Your task to perform on an android device: open app "PlayWell" (install if not already installed) Image 0: 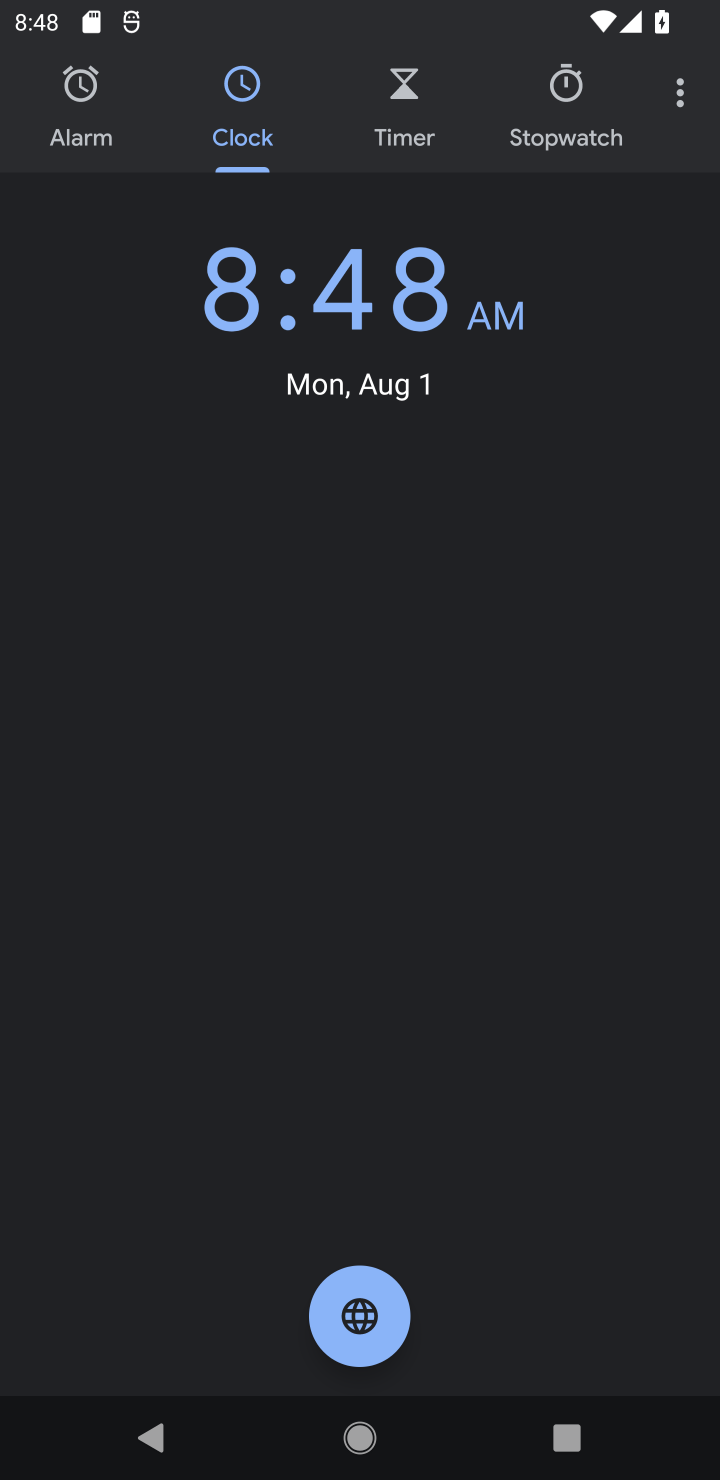
Step 0: press home button
Your task to perform on an android device: open app "PlayWell" (install if not already installed) Image 1: 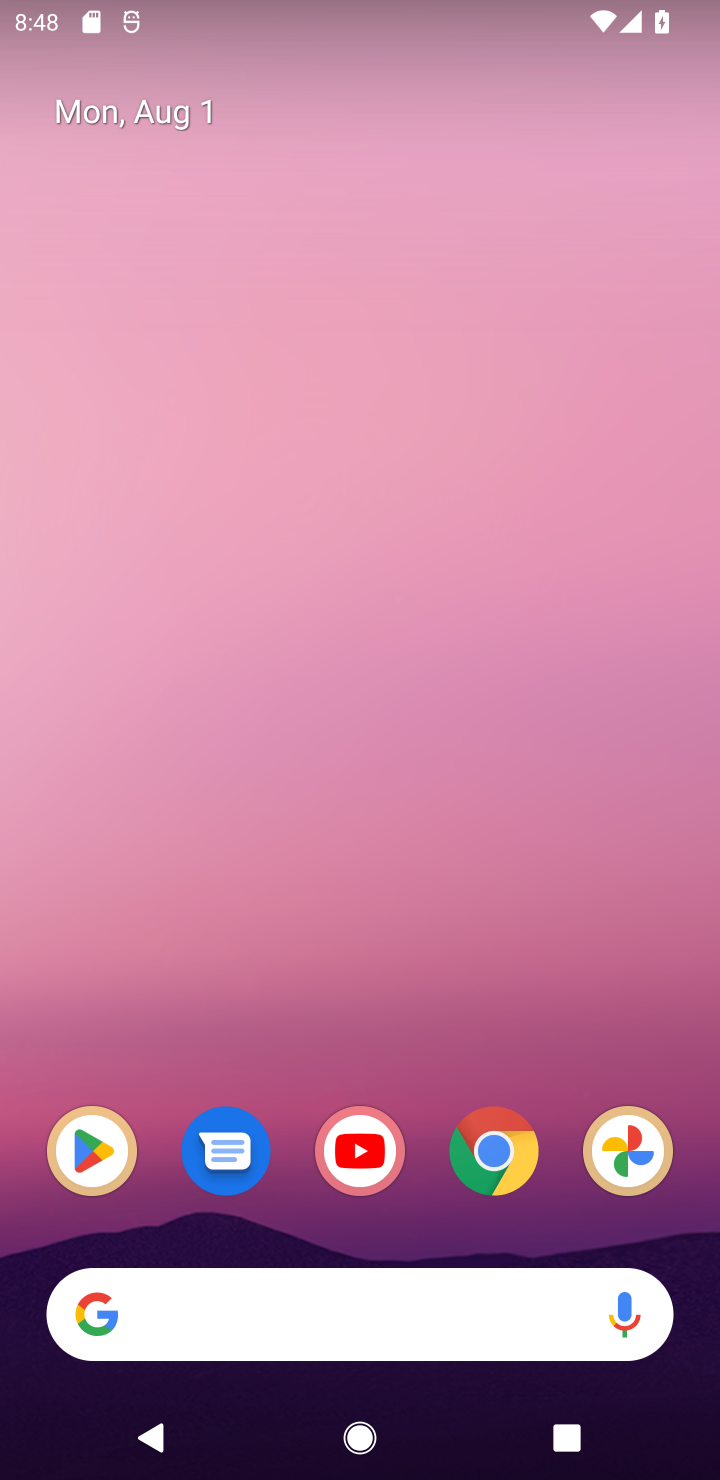
Step 1: click (106, 1154)
Your task to perform on an android device: open app "PlayWell" (install if not already installed) Image 2: 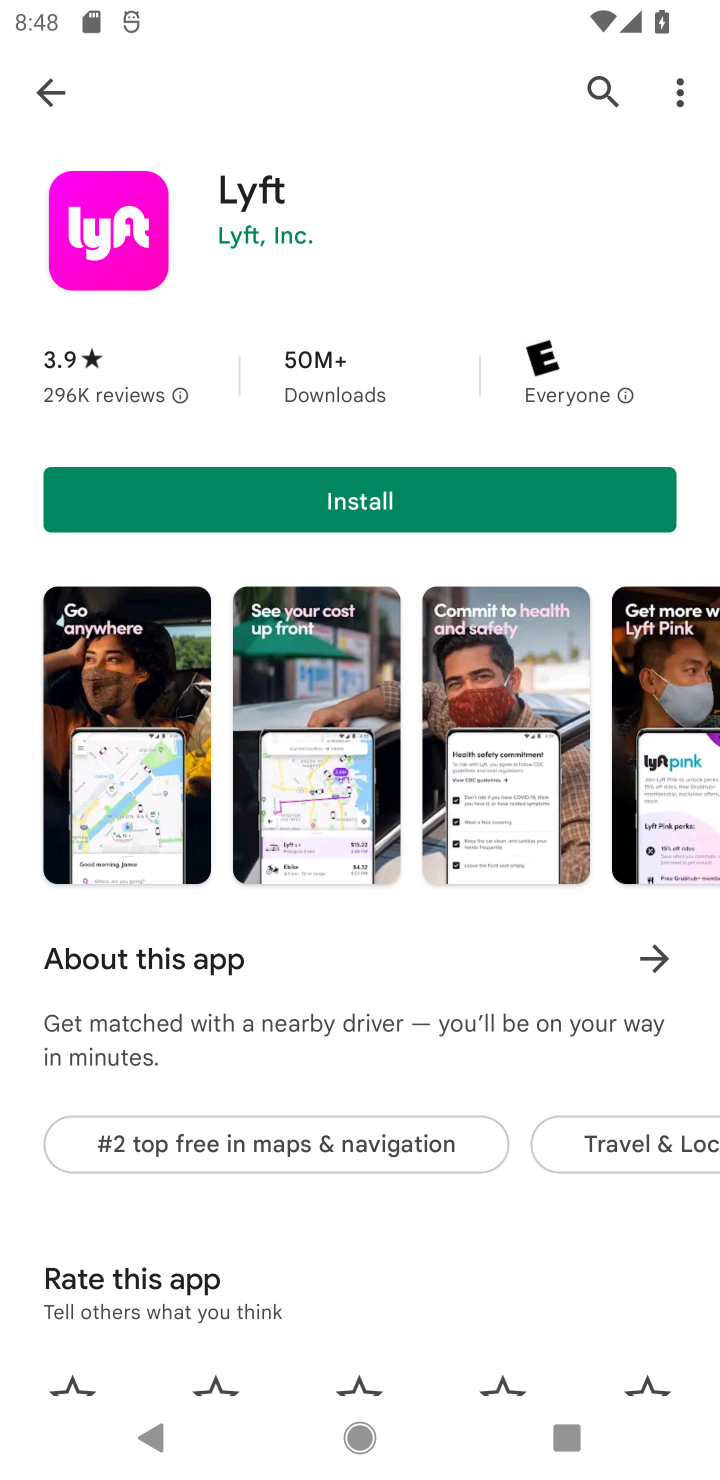
Step 2: click (599, 108)
Your task to perform on an android device: open app "PlayWell" (install if not already installed) Image 3: 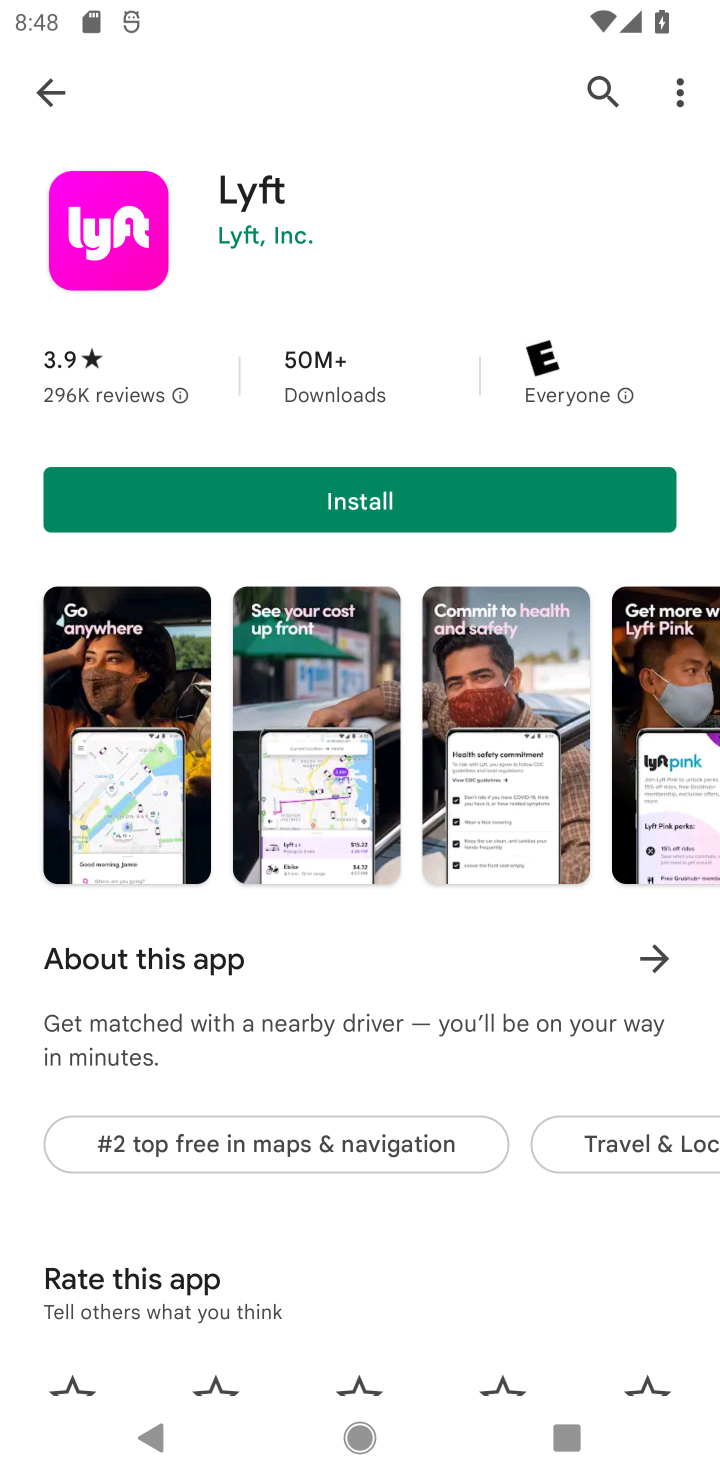
Step 3: click (590, 93)
Your task to perform on an android device: open app "PlayWell" (install if not already installed) Image 4: 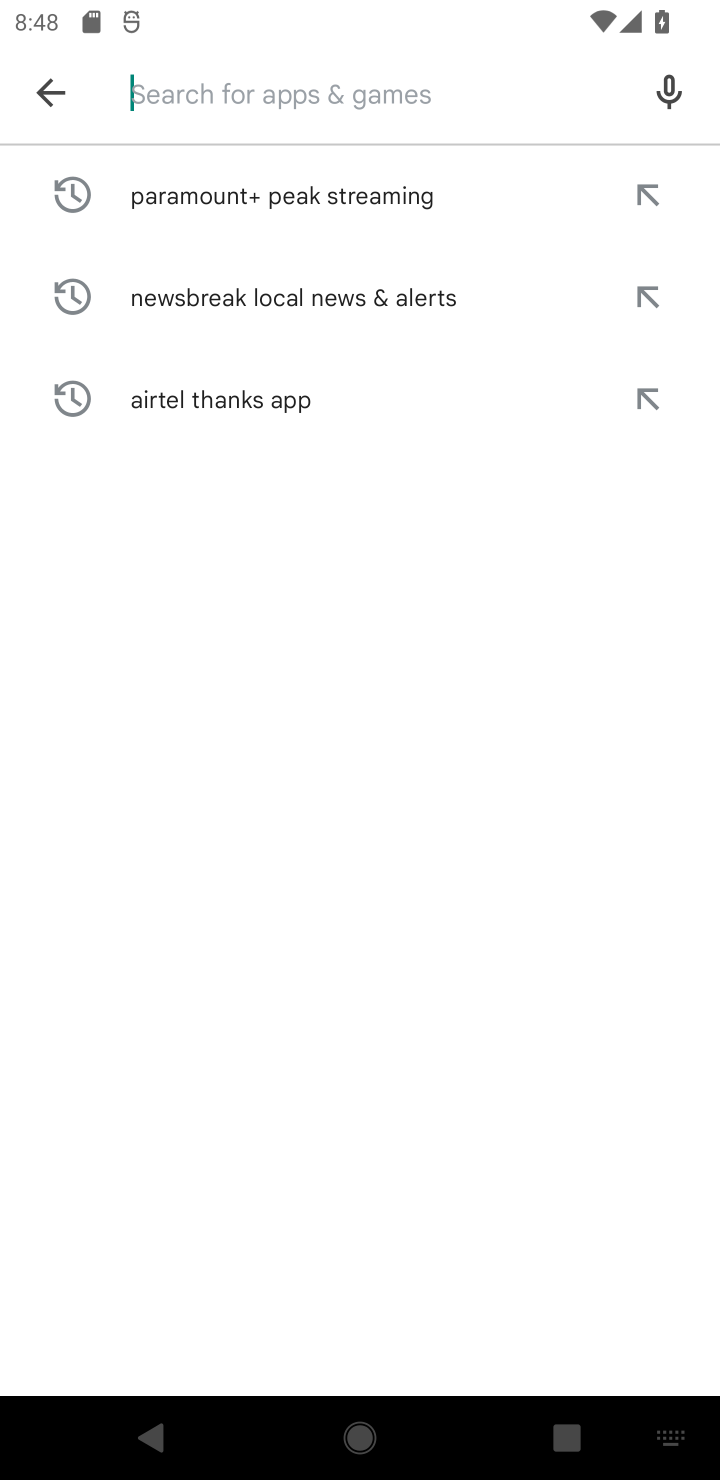
Step 4: type "PlayWell"
Your task to perform on an android device: open app "PlayWell" (install if not already installed) Image 5: 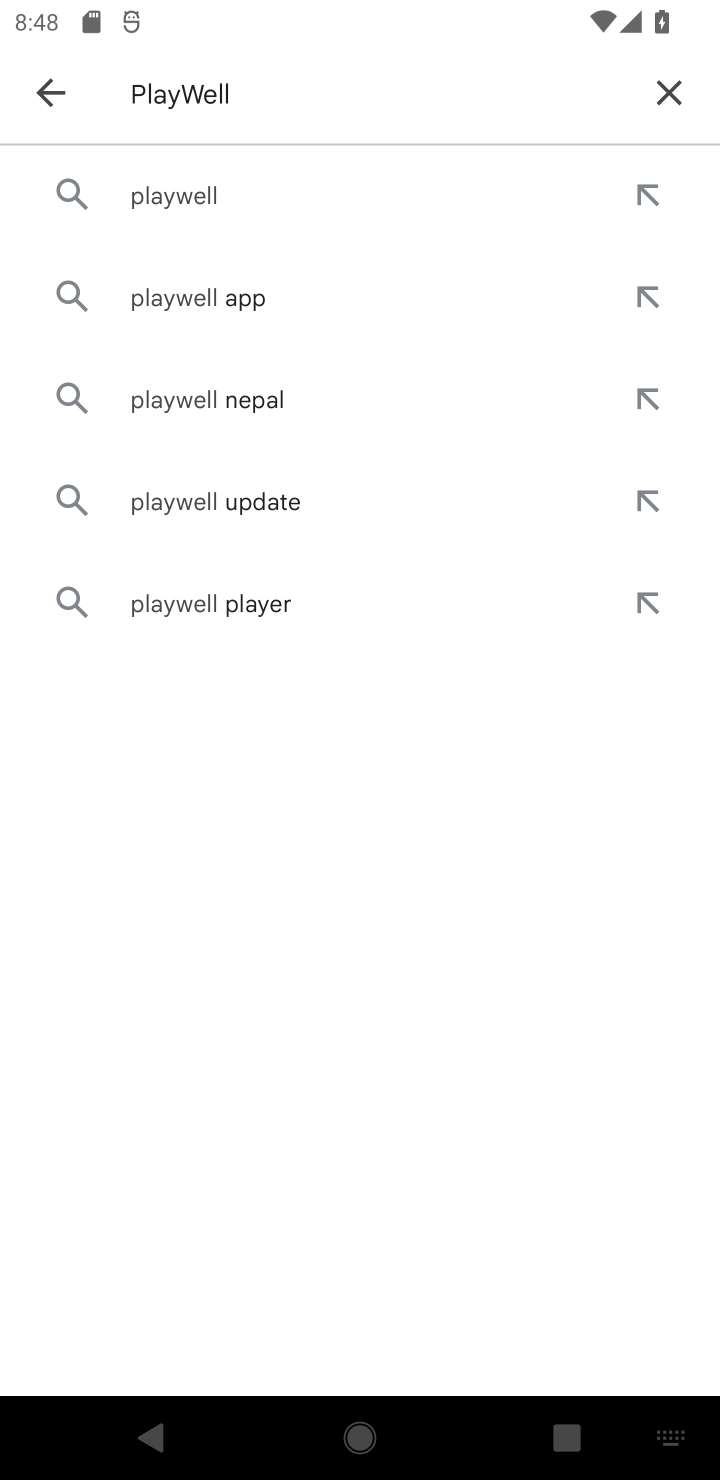
Step 5: click (225, 187)
Your task to perform on an android device: open app "PlayWell" (install if not already installed) Image 6: 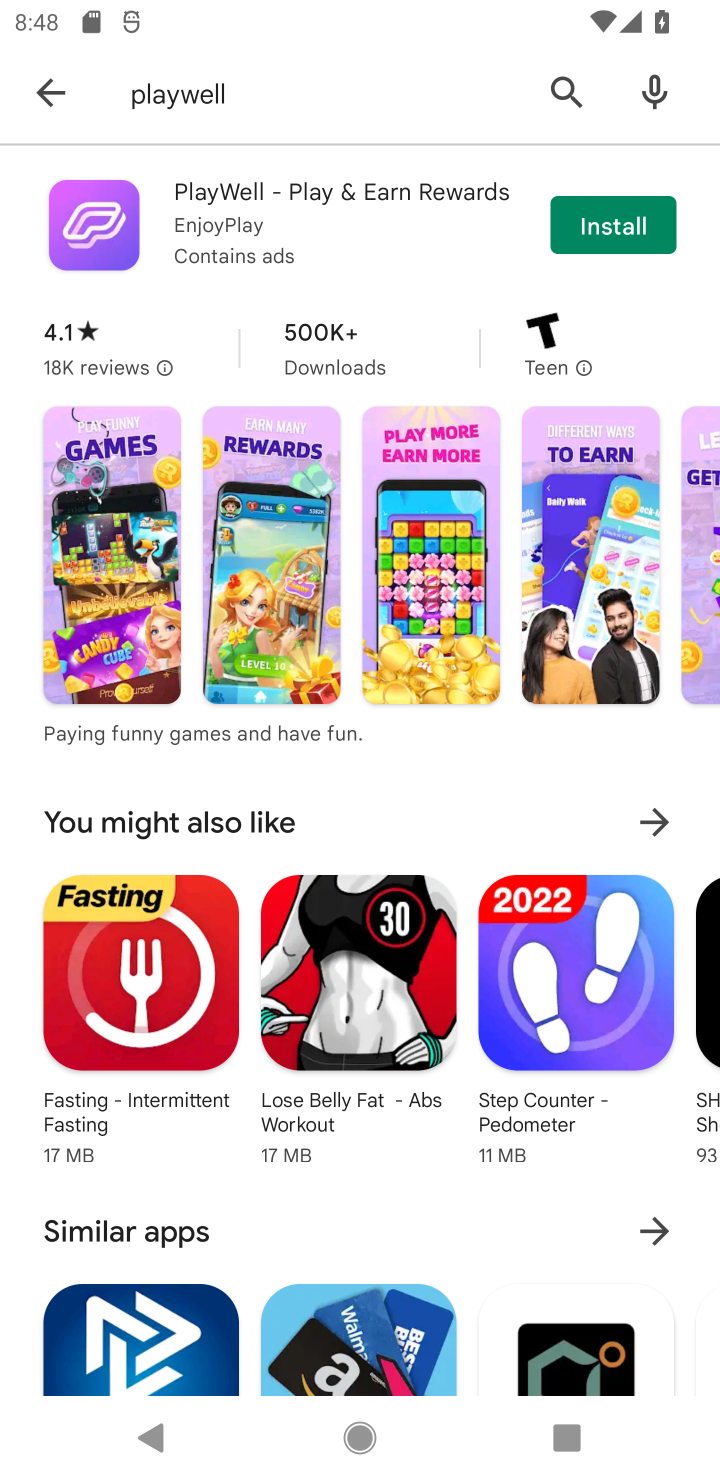
Step 6: click (572, 226)
Your task to perform on an android device: open app "PlayWell" (install if not already installed) Image 7: 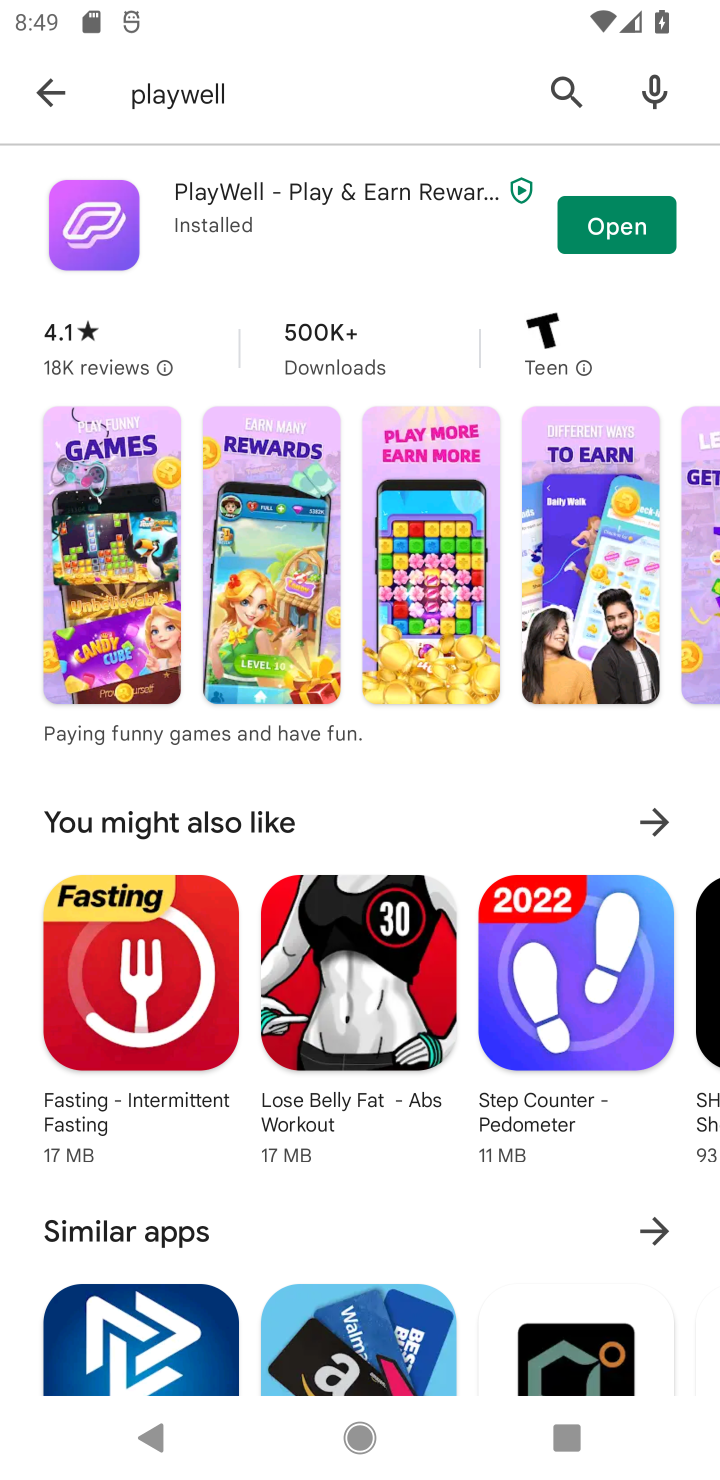
Step 7: click (597, 241)
Your task to perform on an android device: open app "PlayWell" (install if not already installed) Image 8: 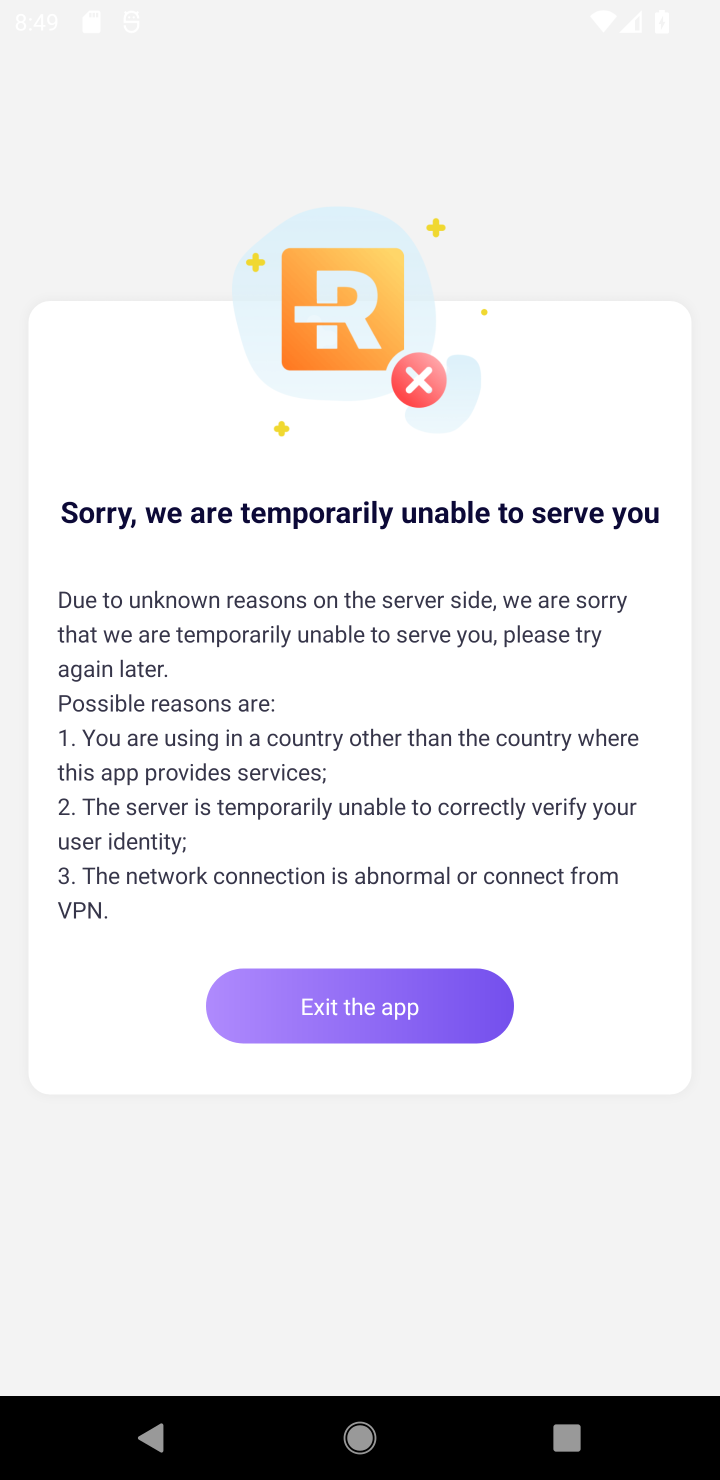
Step 8: task complete